Your task to perform on an android device: Go to location settings Image 0: 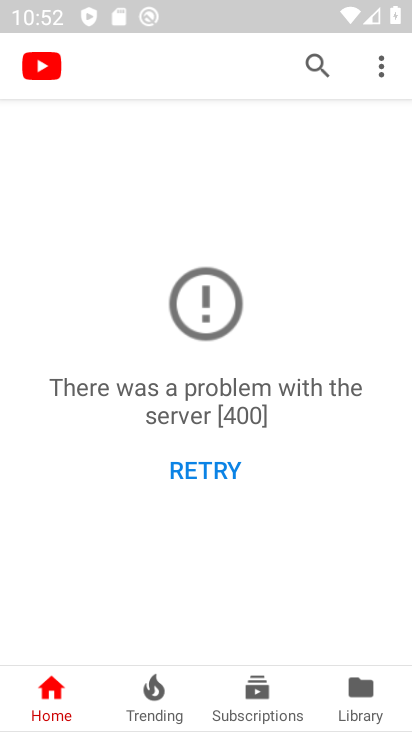
Step 0: press home button
Your task to perform on an android device: Go to location settings Image 1: 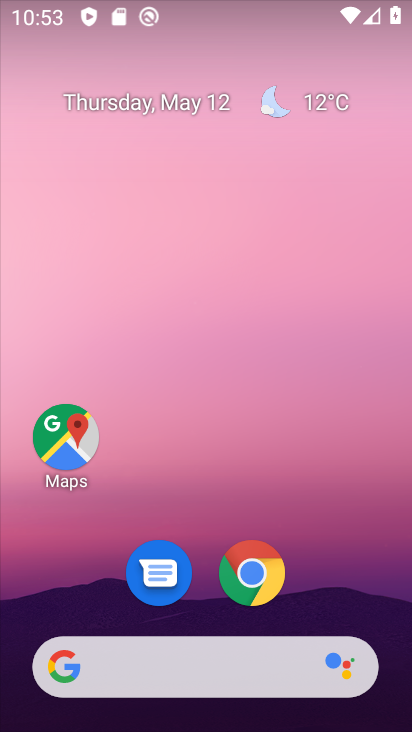
Step 1: drag from (365, 521) to (410, 3)
Your task to perform on an android device: Go to location settings Image 2: 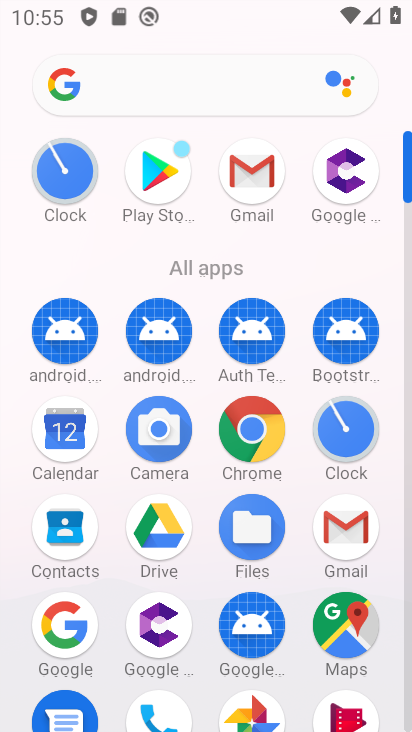
Step 2: click (346, 597)
Your task to perform on an android device: Go to location settings Image 3: 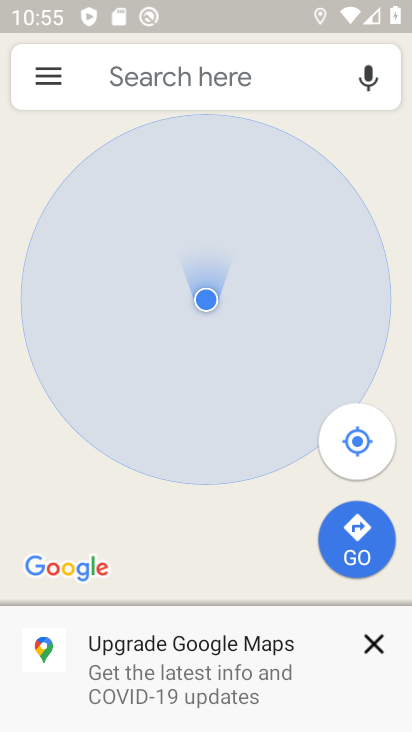
Step 3: press home button
Your task to perform on an android device: Go to location settings Image 4: 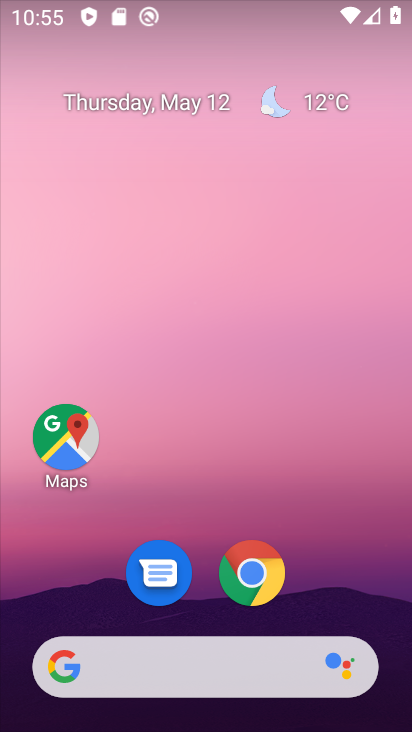
Step 4: drag from (345, 559) to (376, 59)
Your task to perform on an android device: Go to location settings Image 5: 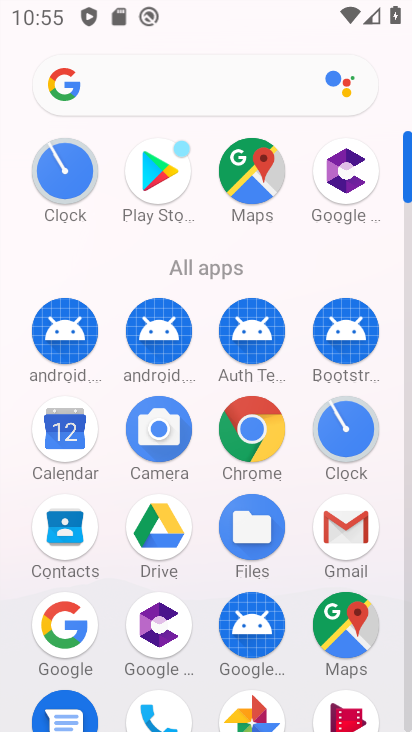
Step 5: click (407, 686)
Your task to perform on an android device: Go to location settings Image 6: 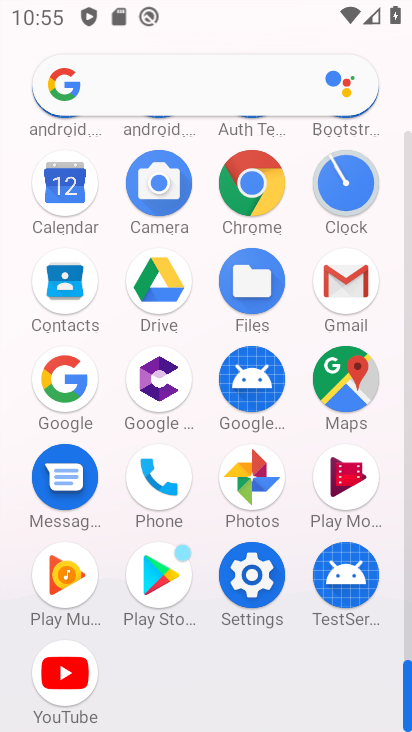
Step 6: click (246, 600)
Your task to perform on an android device: Go to location settings Image 7: 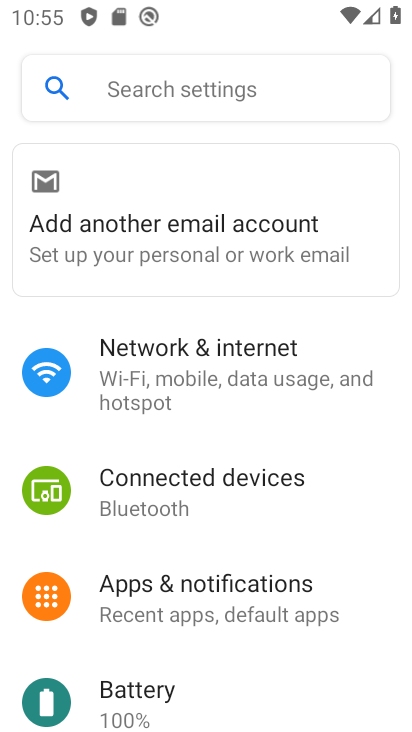
Step 7: drag from (200, 622) to (299, 261)
Your task to perform on an android device: Go to location settings Image 8: 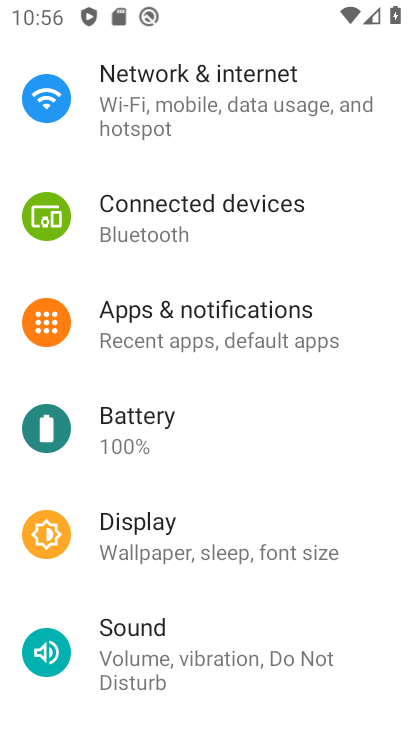
Step 8: drag from (129, 542) to (191, 414)
Your task to perform on an android device: Go to location settings Image 9: 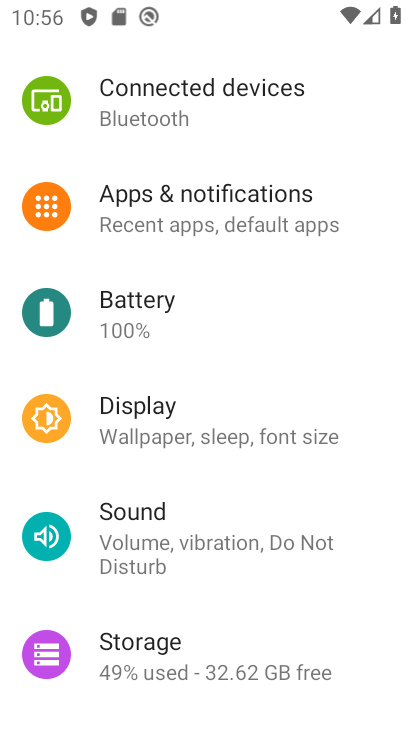
Step 9: drag from (158, 533) to (327, 11)
Your task to perform on an android device: Go to location settings Image 10: 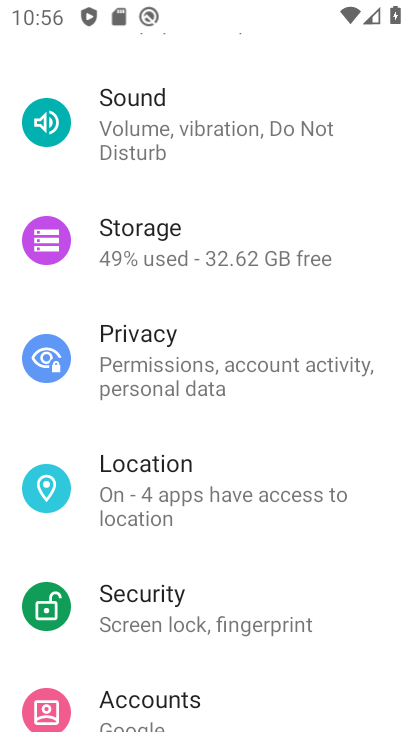
Step 10: click (196, 549)
Your task to perform on an android device: Go to location settings Image 11: 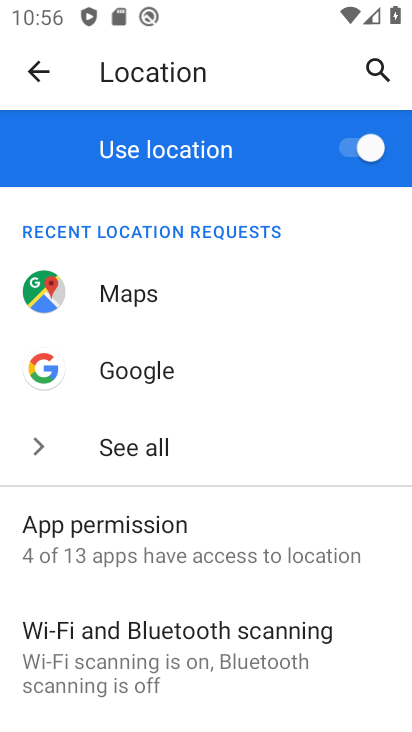
Step 11: task complete